Your task to perform on an android device: Open the calendar and show me this week's events? Image 0: 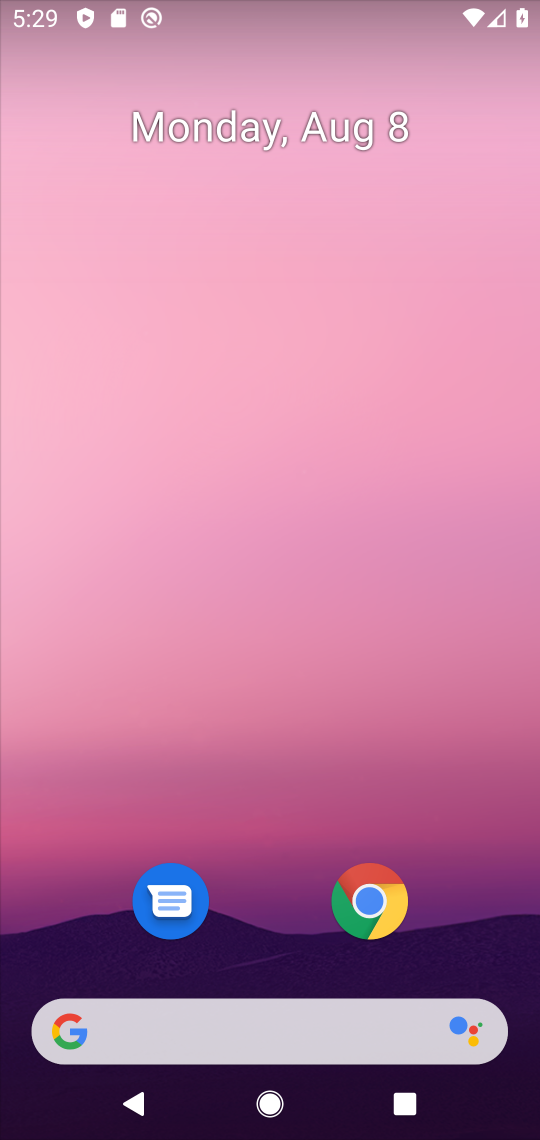
Step 0: drag from (488, 968) to (326, 135)
Your task to perform on an android device: Open the calendar and show me this week's events? Image 1: 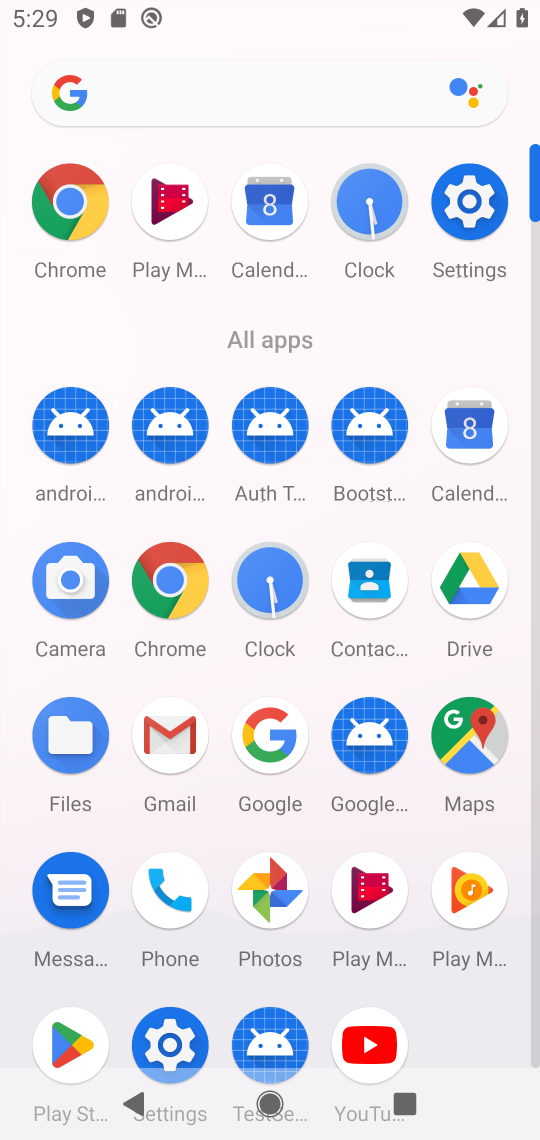
Step 1: click (485, 442)
Your task to perform on an android device: Open the calendar and show me this week's events? Image 2: 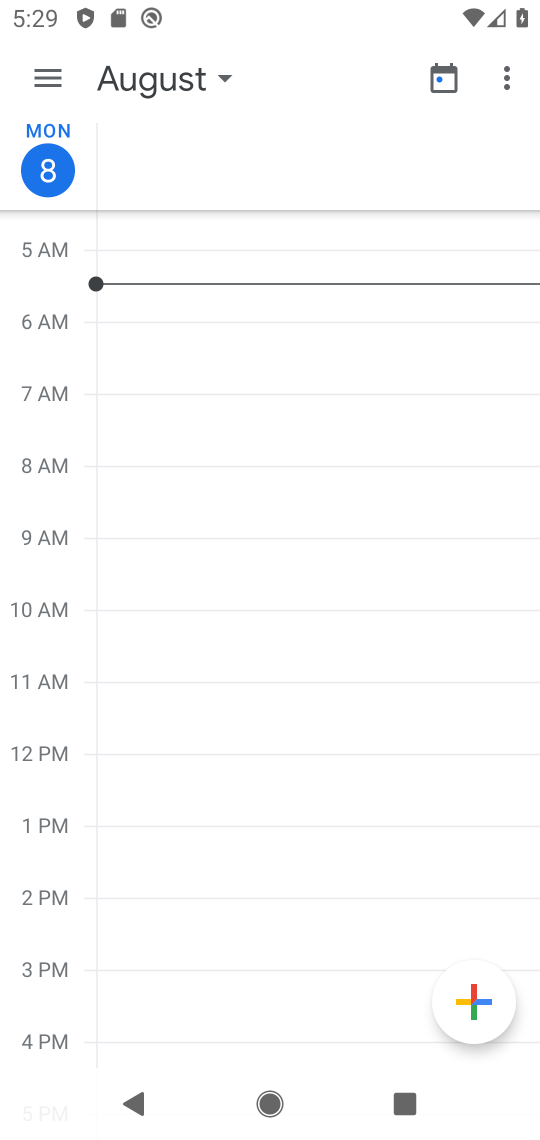
Step 2: click (53, 69)
Your task to perform on an android device: Open the calendar and show me this week's events? Image 3: 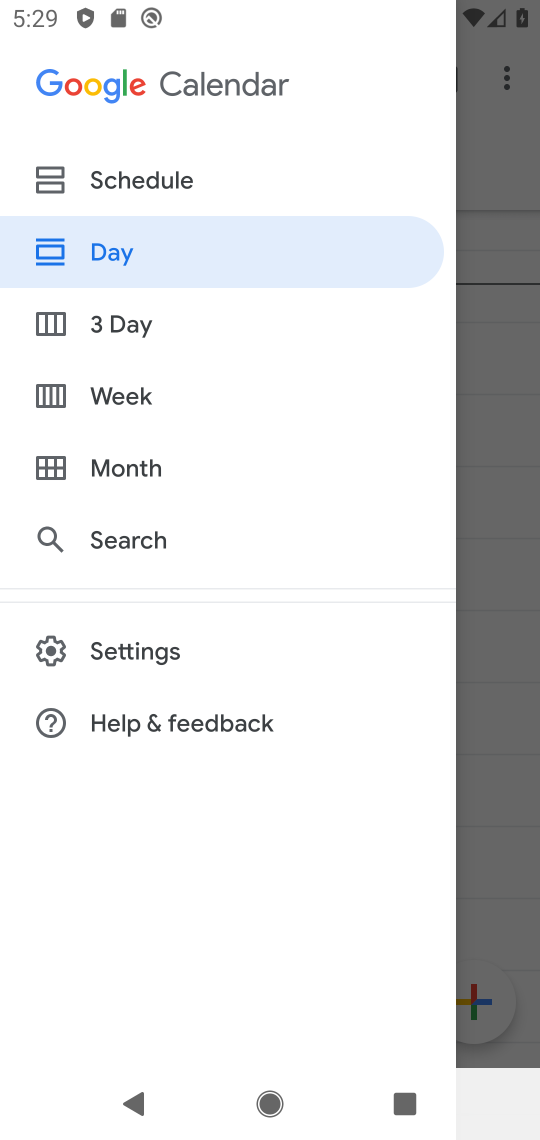
Step 3: click (164, 389)
Your task to perform on an android device: Open the calendar and show me this week's events? Image 4: 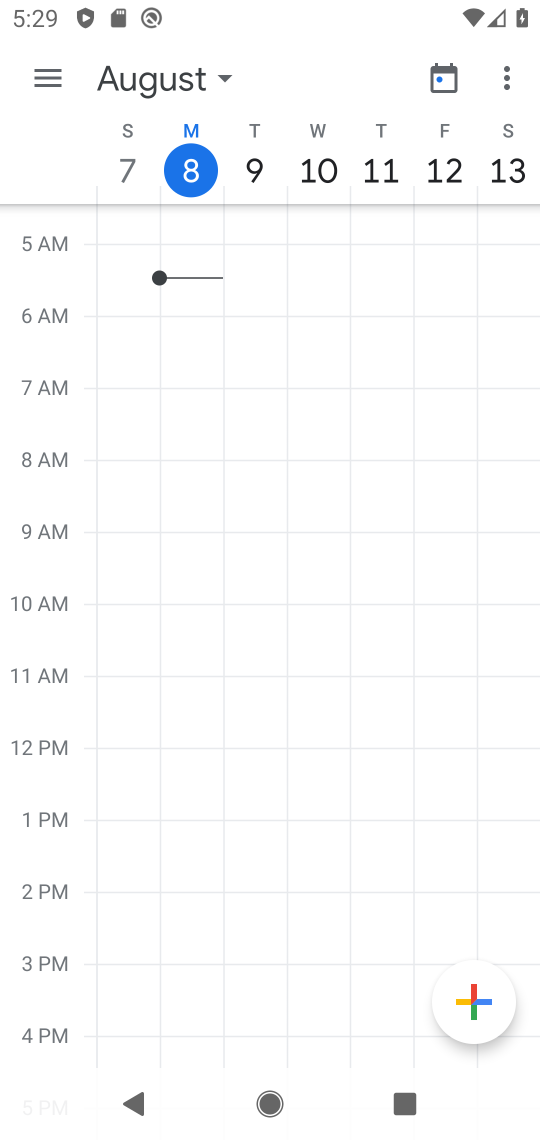
Step 4: task complete